Your task to perform on an android device: turn smart compose on in the gmail app Image 0: 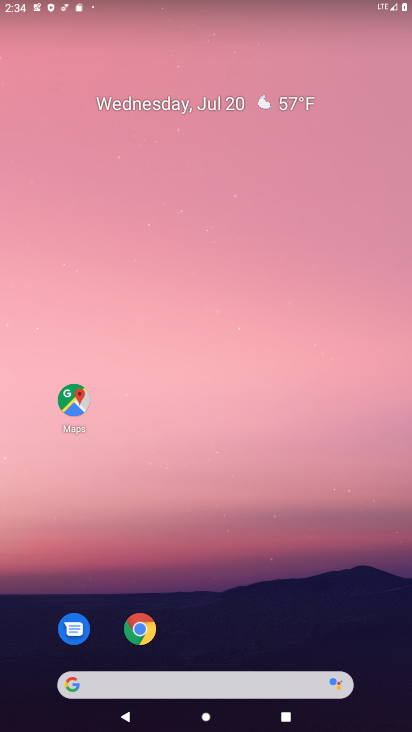
Step 0: drag from (221, 678) to (266, 14)
Your task to perform on an android device: turn smart compose on in the gmail app Image 1: 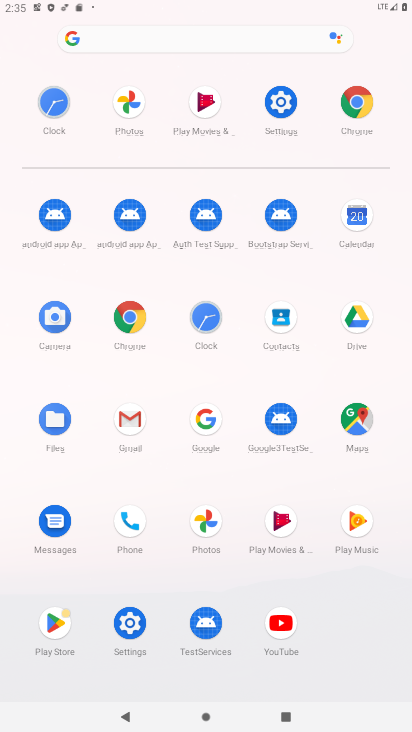
Step 1: click (122, 419)
Your task to perform on an android device: turn smart compose on in the gmail app Image 2: 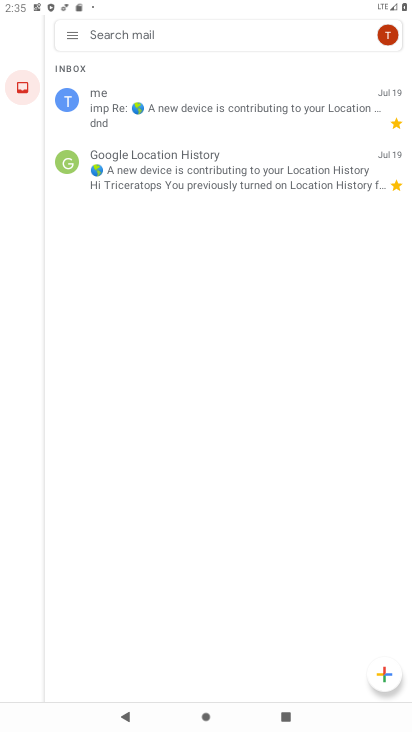
Step 2: click (76, 42)
Your task to perform on an android device: turn smart compose on in the gmail app Image 3: 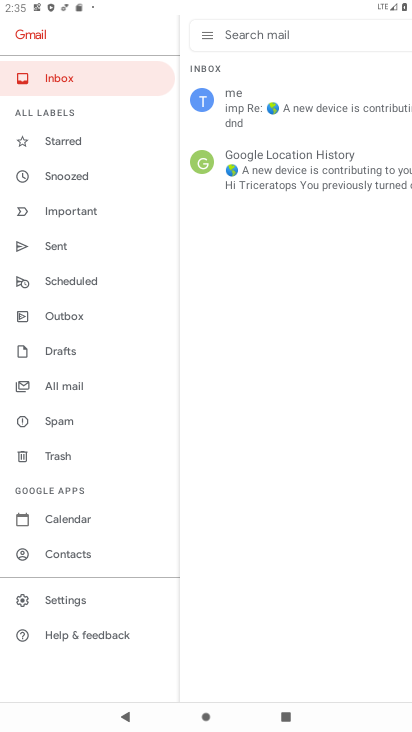
Step 3: click (77, 593)
Your task to perform on an android device: turn smart compose on in the gmail app Image 4: 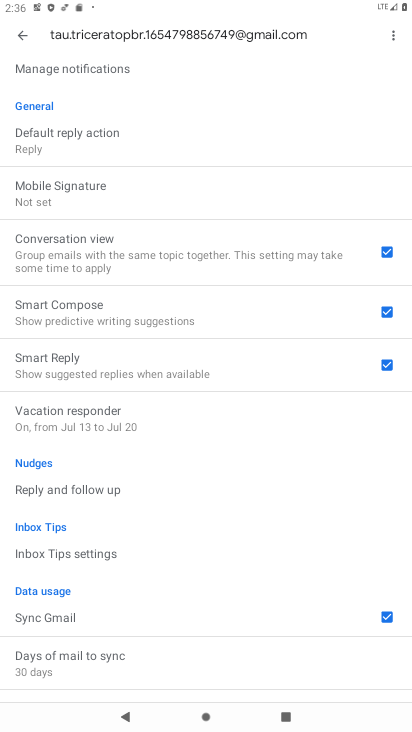
Step 4: task complete